Your task to perform on an android device: Search for vegetarian restaurants on Maps Image 0: 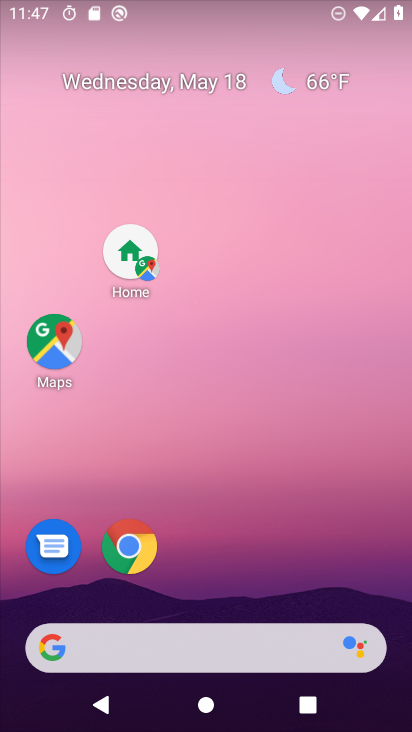
Step 0: click (50, 340)
Your task to perform on an android device: Search for vegetarian restaurants on Maps Image 1: 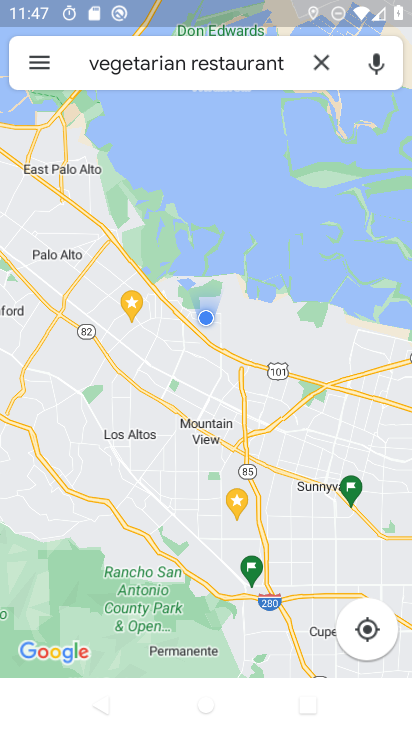
Step 1: click (286, 61)
Your task to perform on an android device: Search for vegetarian restaurants on Maps Image 2: 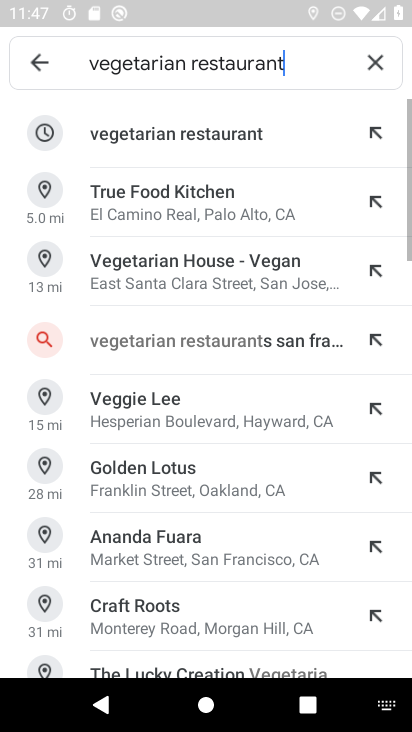
Step 2: click (208, 131)
Your task to perform on an android device: Search for vegetarian restaurants on Maps Image 3: 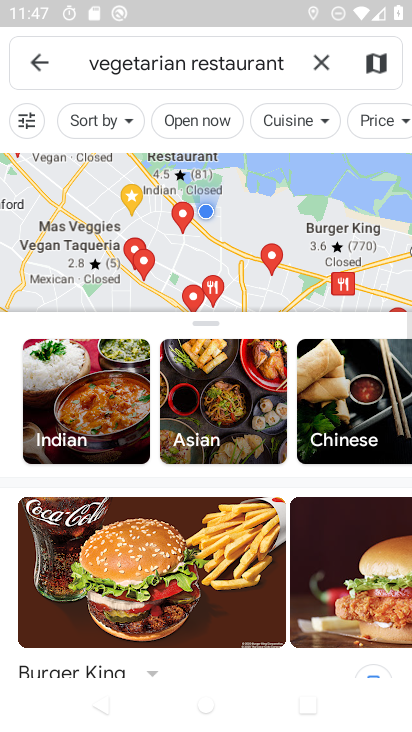
Step 3: task complete